Your task to perform on an android device: open wifi settings Image 0: 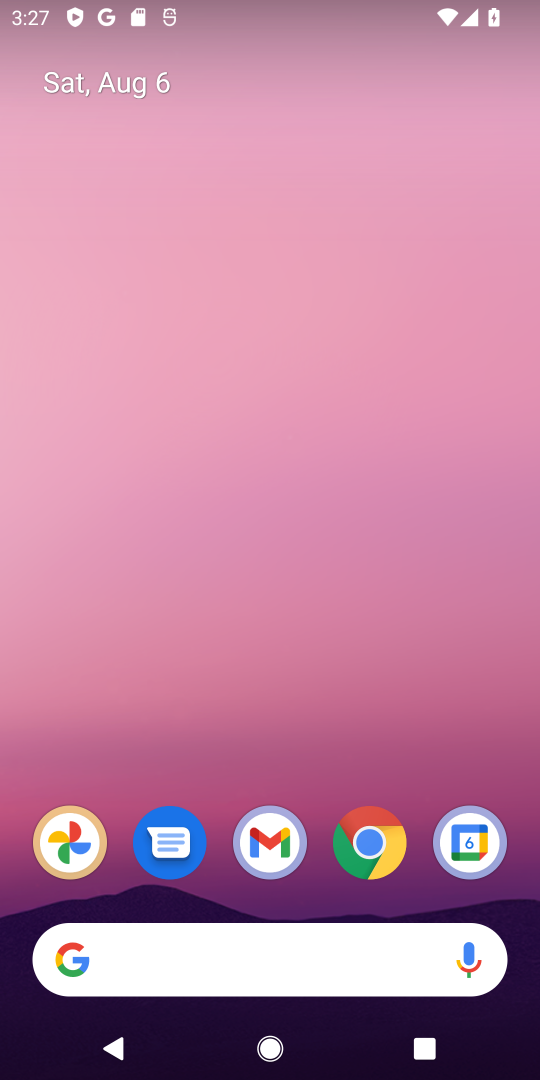
Step 0: drag from (493, 876) to (459, 327)
Your task to perform on an android device: open wifi settings Image 1: 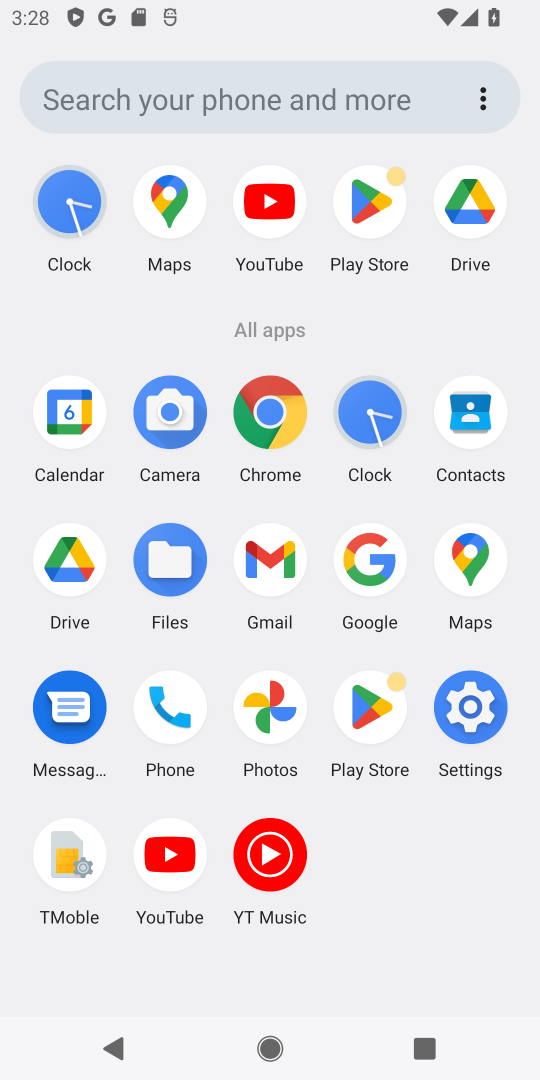
Step 1: click (473, 708)
Your task to perform on an android device: open wifi settings Image 2: 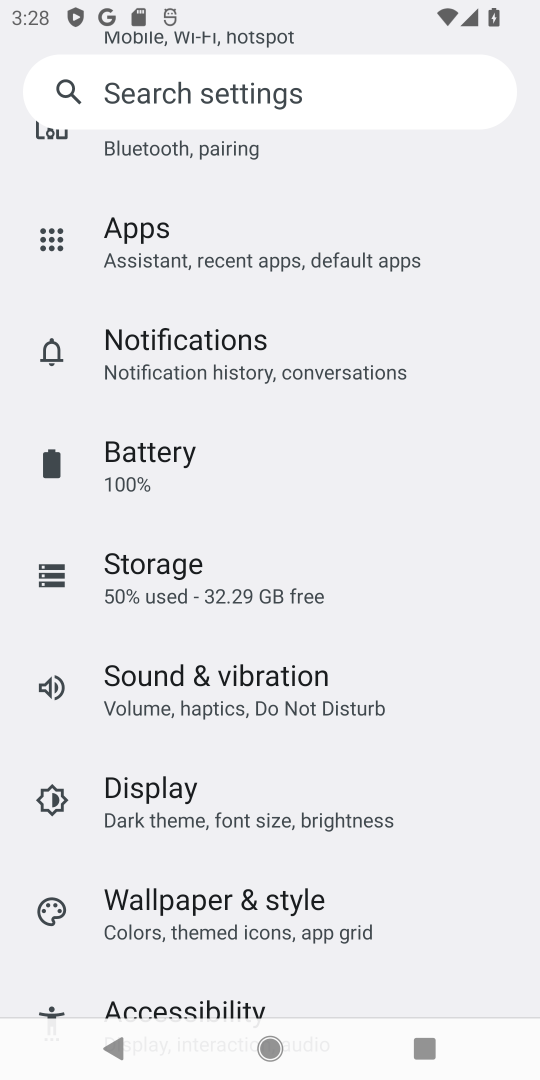
Step 2: drag from (447, 272) to (394, 969)
Your task to perform on an android device: open wifi settings Image 3: 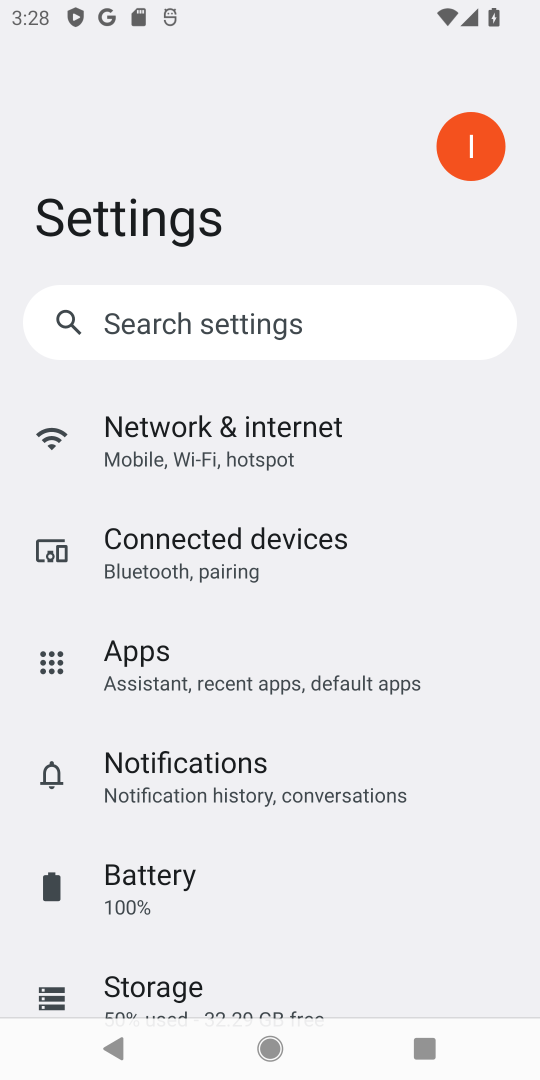
Step 3: click (175, 452)
Your task to perform on an android device: open wifi settings Image 4: 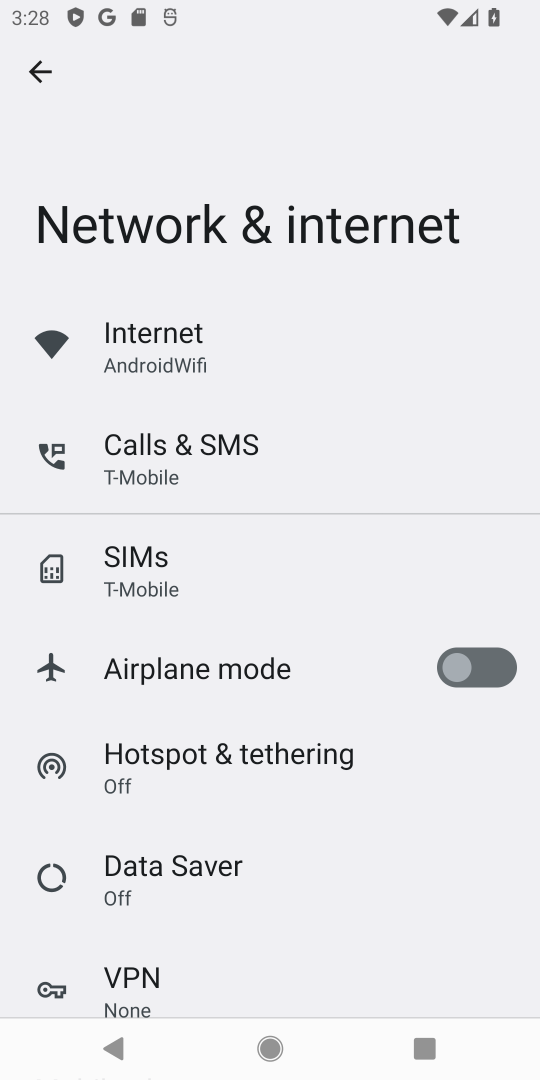
Step 4: drag from (355, 947) to (384, 549)
Your task to perform on an android device: open wifi settings Image 5: 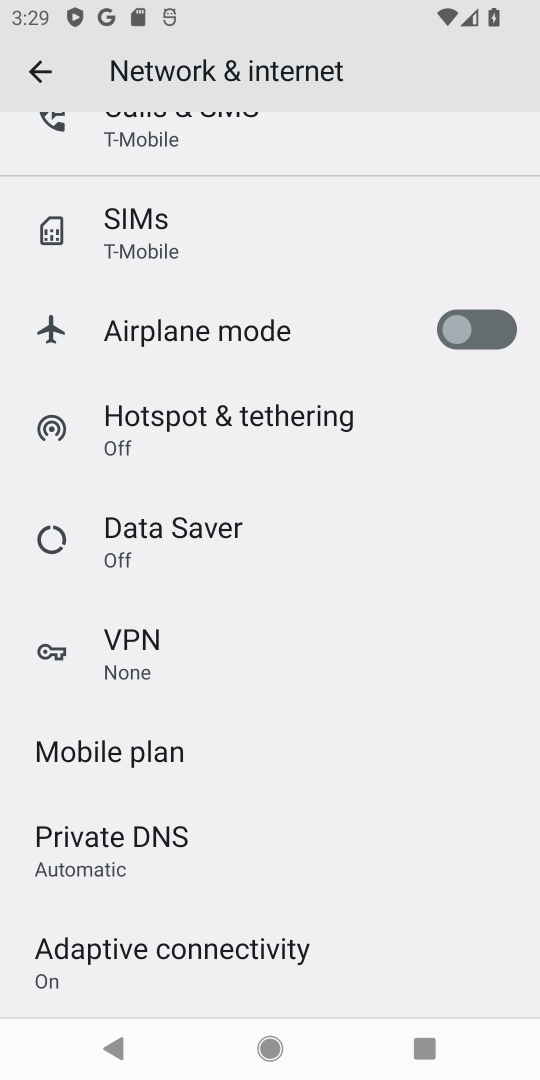
Step 5: drag from (334, 330) to (333, 729)
Your task to perform on an android device: open wifi settings Image 6: 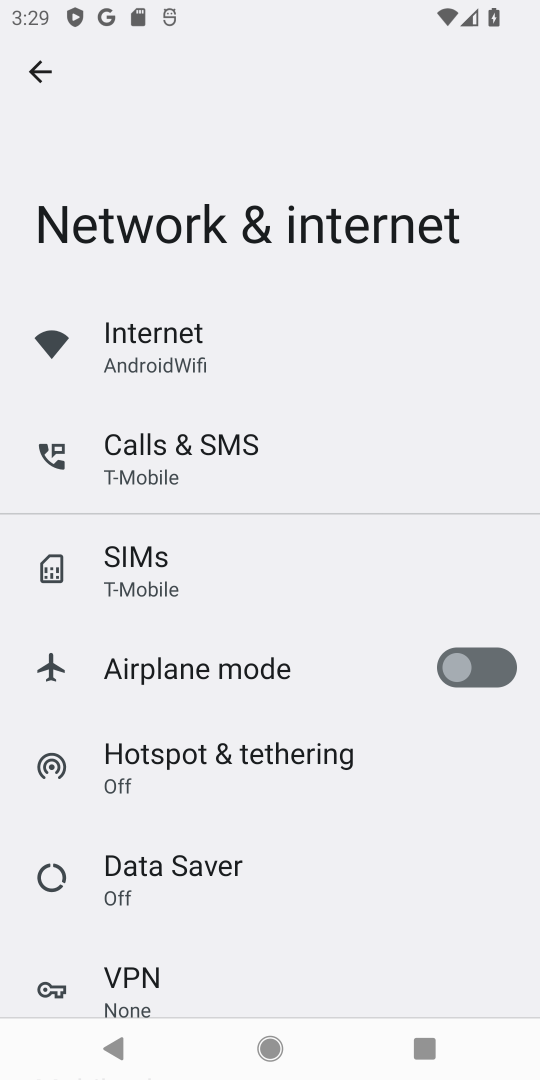
Step 6: click (115, 339)
Your task to perform on an android device: open wifi settings Image 7: 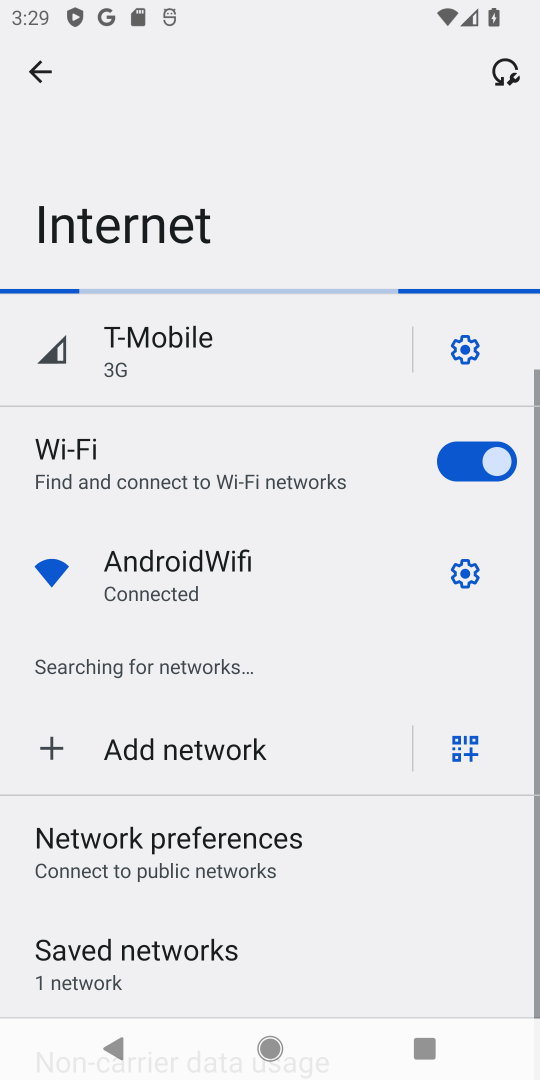
Step 7: click (470, 455)
Your task to perform on an android device: open wifi settings Image 8: 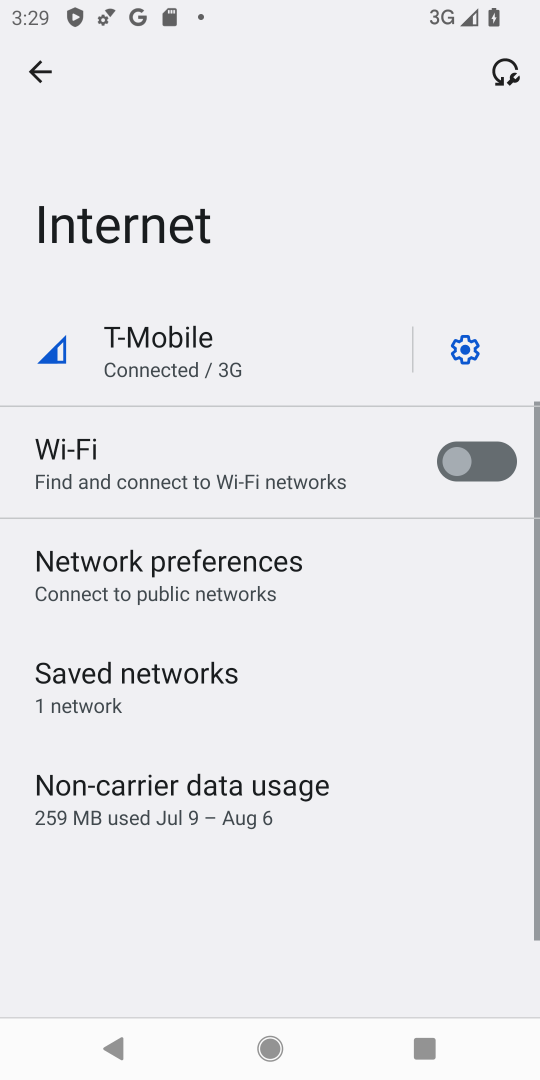
Step 8: click (524, 474)
Your task to perform on an android device: open wifi settings Image 9: 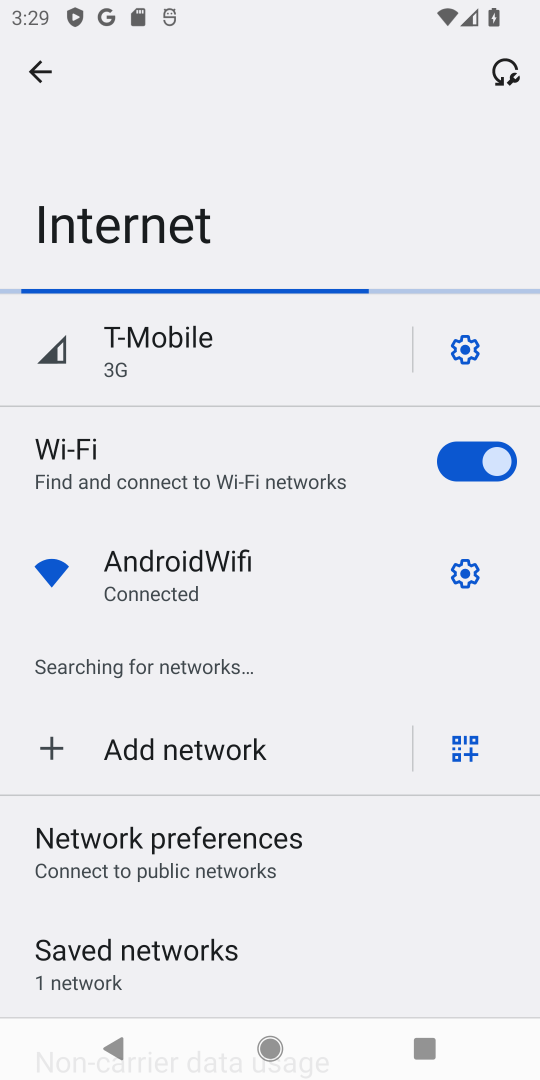
Step 9: click (467, 558)
Your task to perform on an android device: open wifi settings Image 10: 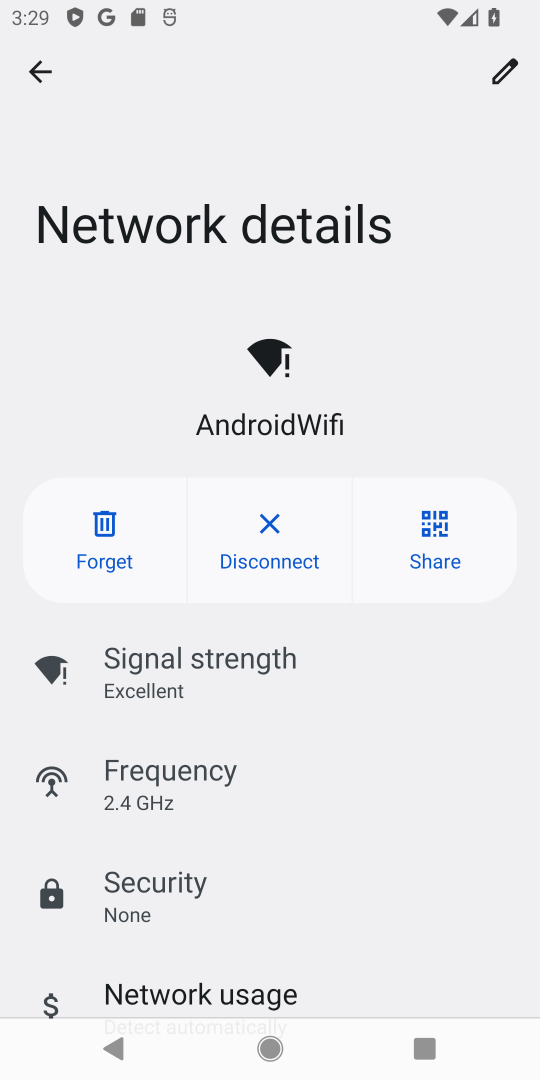
Step 10: task complete